Your task to perform on an android device: Open Chrome and go to the settings page Image 0: 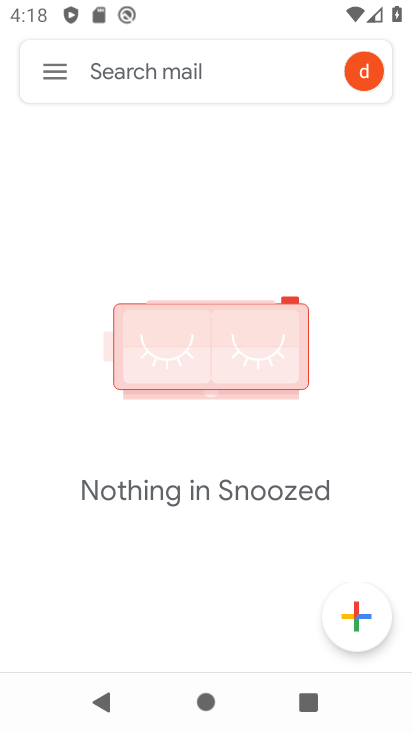
Step 0: press back button
Your task to perform on an android device: Open Chrome and go to the settings page Image 1: 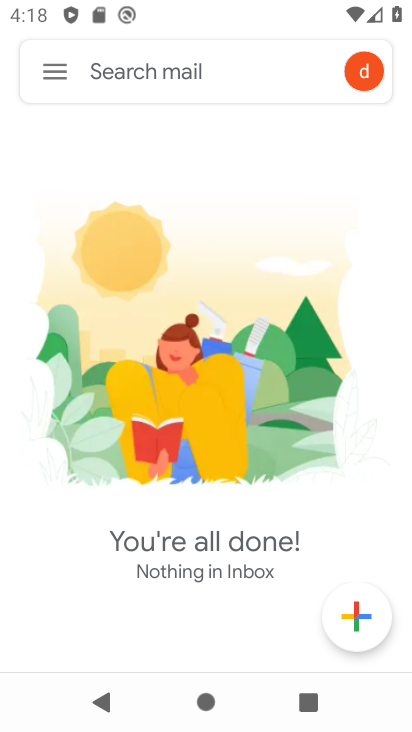
Step 1: press back button
Your task to perform on an android device: Open Chrome and go to the settings page Image 2: 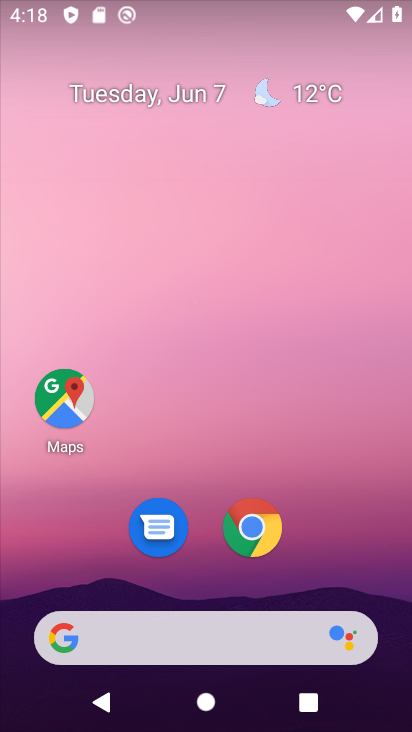
Step 2: click (251, 525)
Your task to perform on an android device: Open Chrome and go to the settings page Image 3: 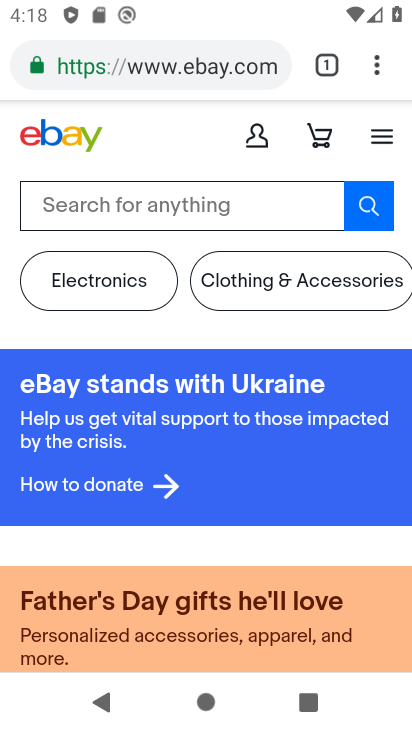
Step 3: click (377, 64)
Your task to perform on an android device: Open Chrome and go to the settings page Image 4: 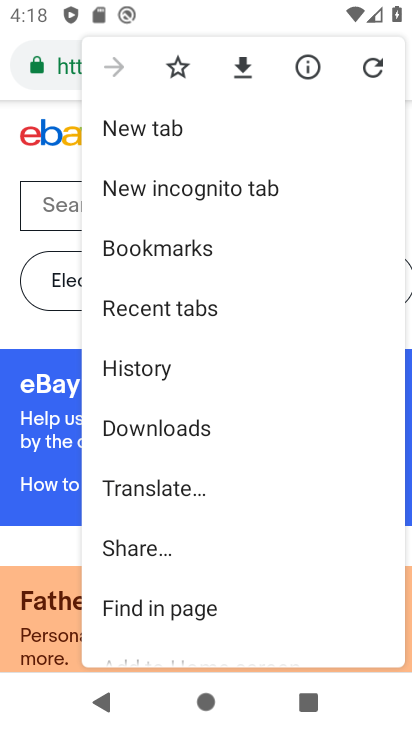
Step 4: drag from (157, 510) to (210, 395)
Your task to perform on an android device: Open Chrome and go to the settings page Image 5: 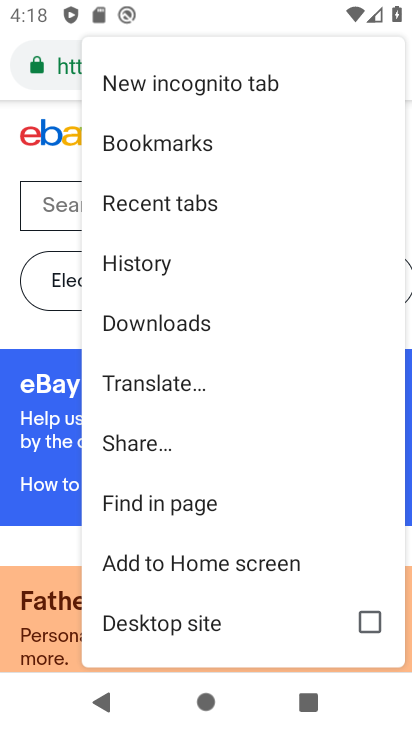
Step 5: drag from (156, 532) to (194, 417)
Your task to perform on an android device: Open Chrome and go to the settings page Image 6: 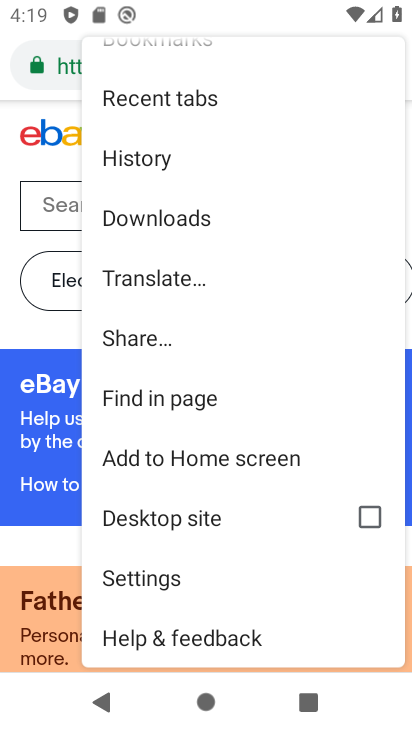
Step 6: click (150, 585)
Your task to perform on an android device: Open Chrome and go to the settings page Image 7: 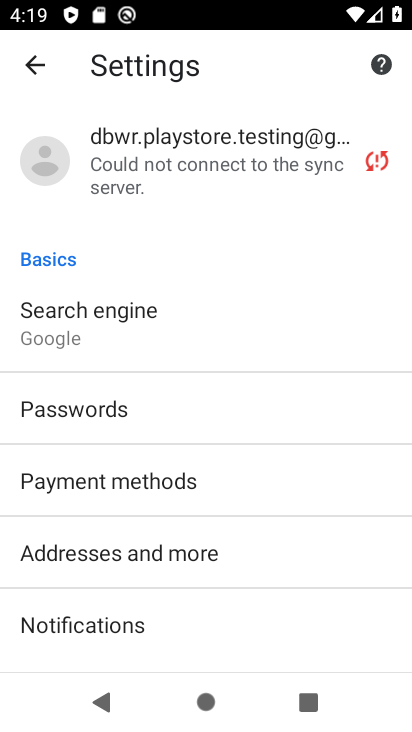
Step 7: task complete